Your task to perform on an android device: set the stopwatch Image 0: 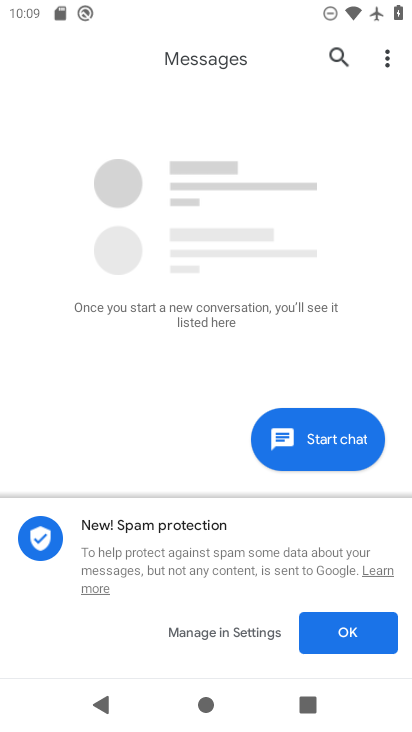
Step 0: press home button
Your task to perform on an android device: set the stopwatch Image 1: 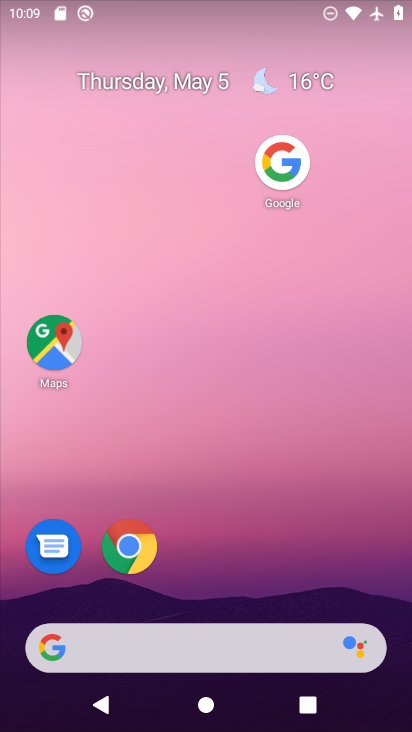
Step 1: drag from (175, 655) to (370, 57)
Your task to perform on an android device: set the stopwatch Image 2: 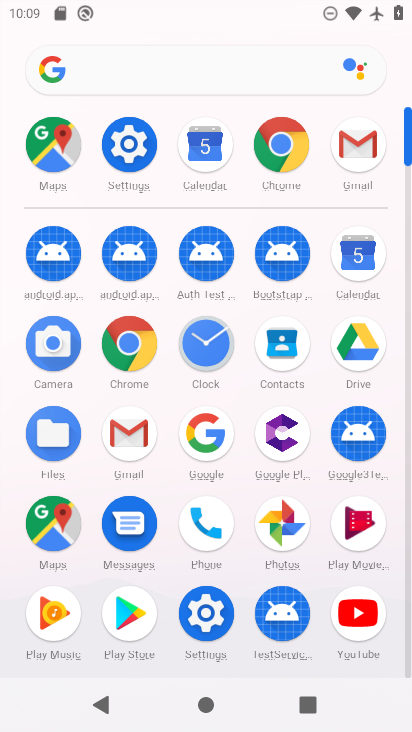
Step 2: click (203, 354)
Your task to perform on an android device: set the stopwatch Image 3: 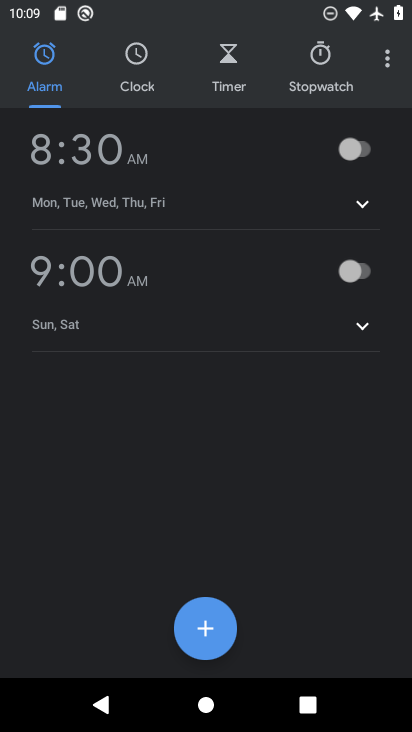
Step 3: click (321, 63)
Your task to perform on an android device: set the stopwatch Image 4: 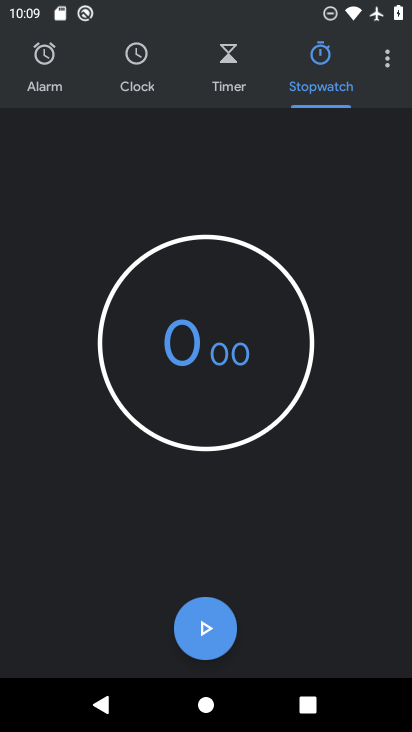
Step 4: click (201, 353)
Your task to perform on an android device: set the stopwatch Image 5: 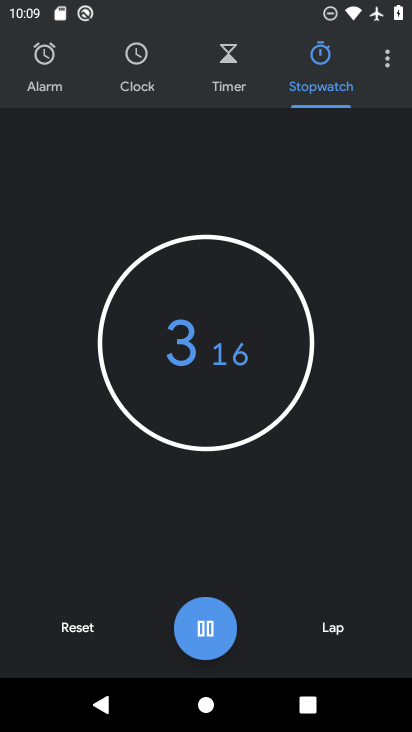
Step 5: click (207, 338)
Your task to perform on an android device: set the stopwatch Image 6: 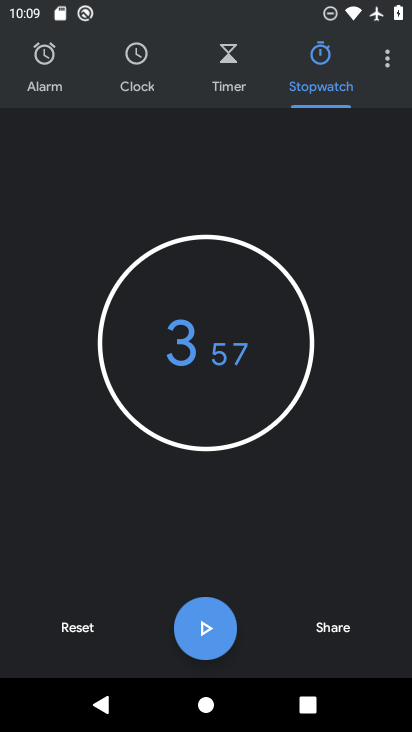
Step 6: task complete